Your task to perform on an android device: change the clock display to show seconds Image 0: 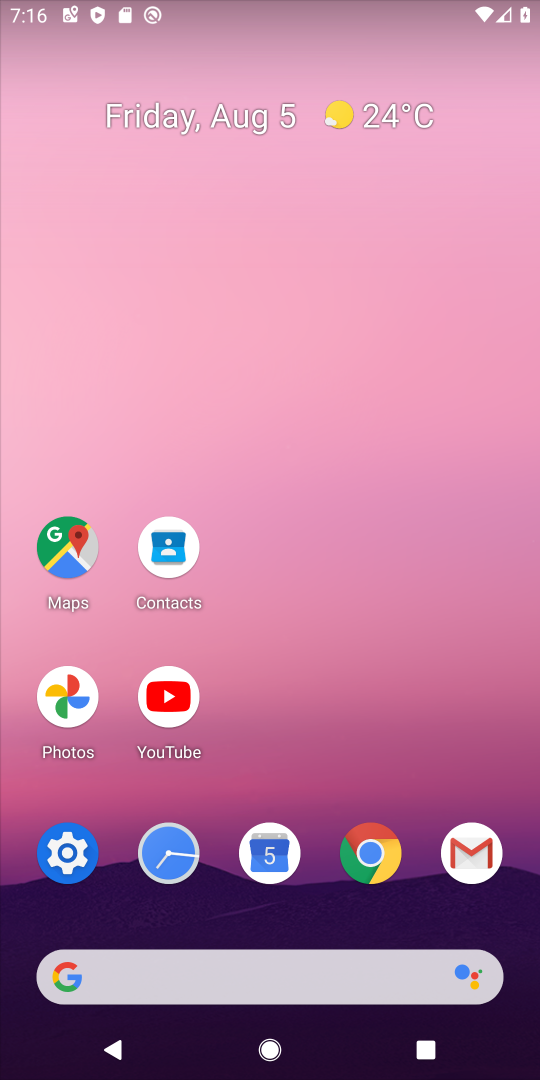
Step 0: click (167, 850)
Your task to perform on an android device: change the clock display to show seconds Image 1: 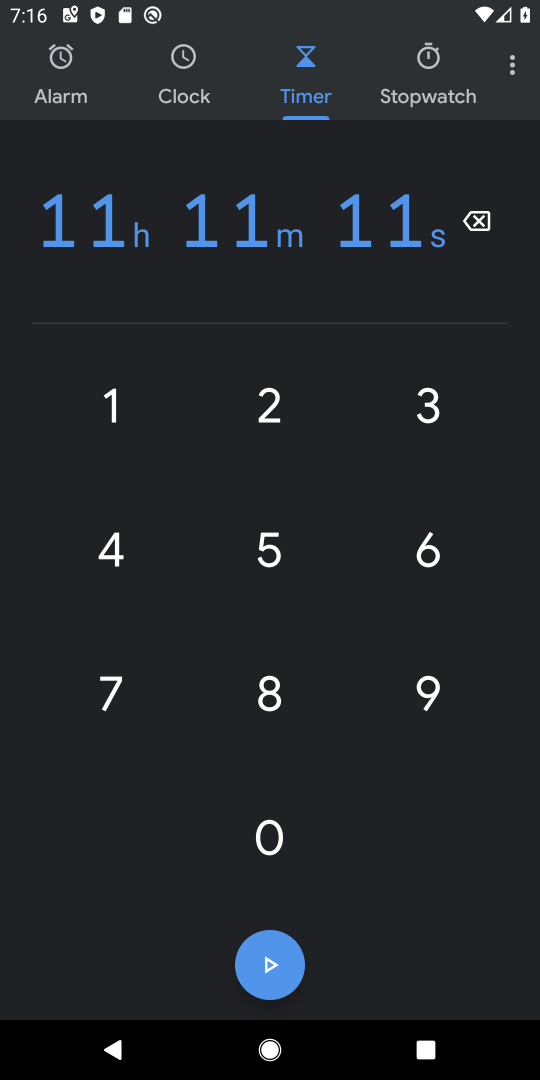
Step 1: click (512, 55)
Your task to perform on an android device: change the clock display to show seconds Image 2: 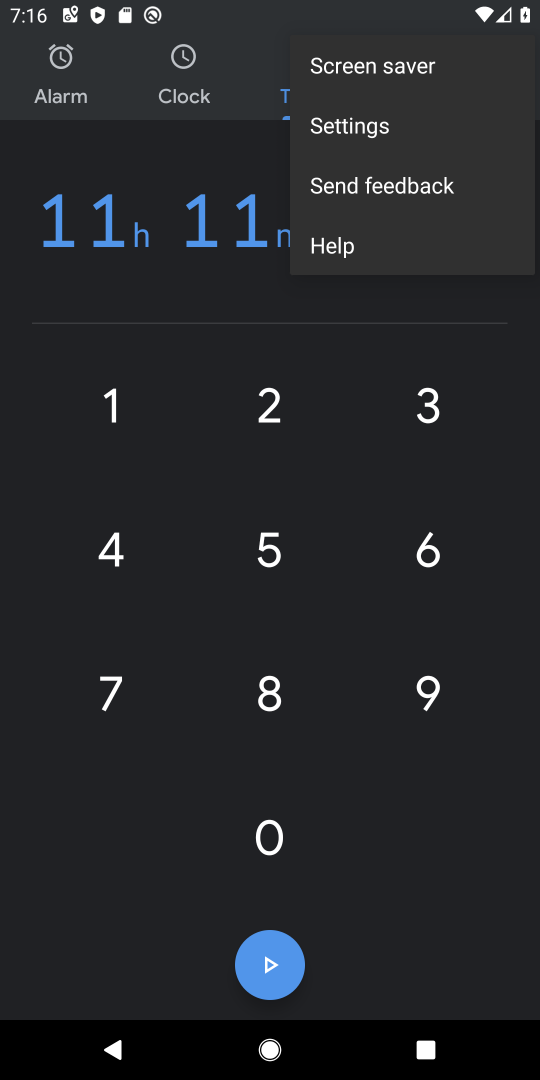
Step 2: click (355, 127)
Your task to perform on an android device: change the clock display to show seconds Image 3: 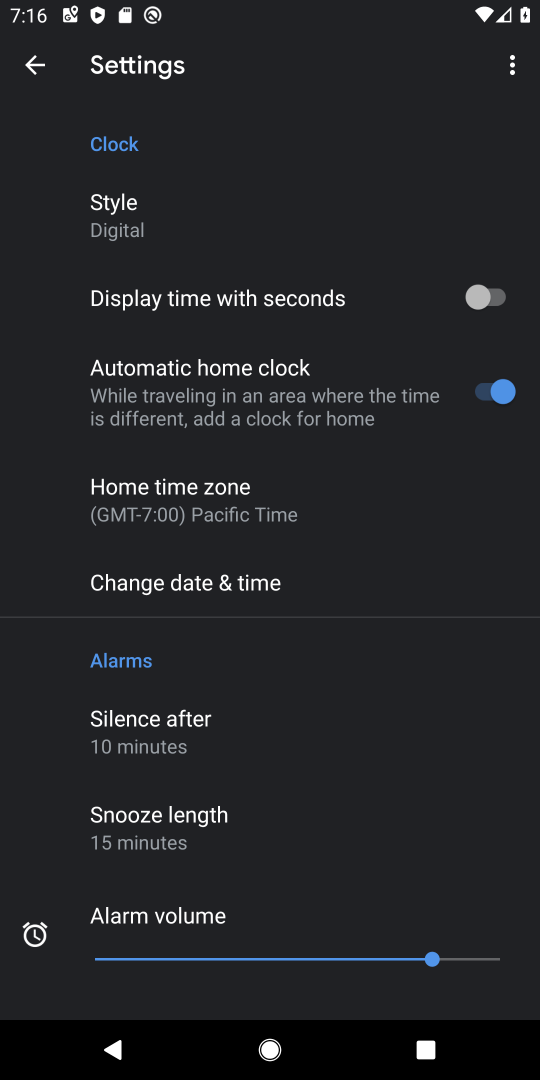
Step 3: click (118, 208)
Your task to perform on an android device: change the clock display to show seconds Image 4: 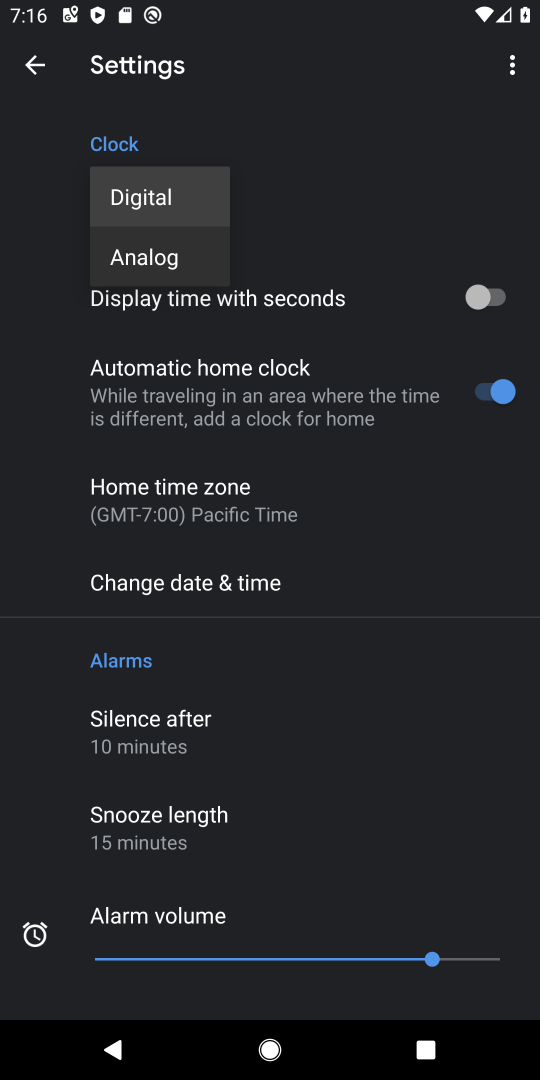
Step 4: click (468, 295)
Your task to perform on an android device: change the clock display to show seconds Image 5: 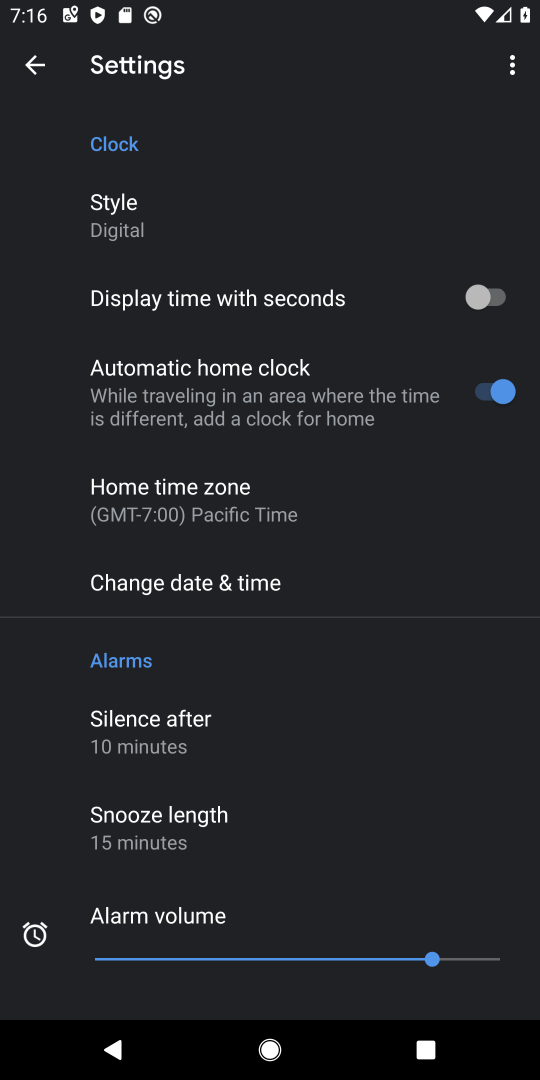
Step 5: click (489, 297)
Your task to perform on an android device: change the clock display to show seconds Image 6: 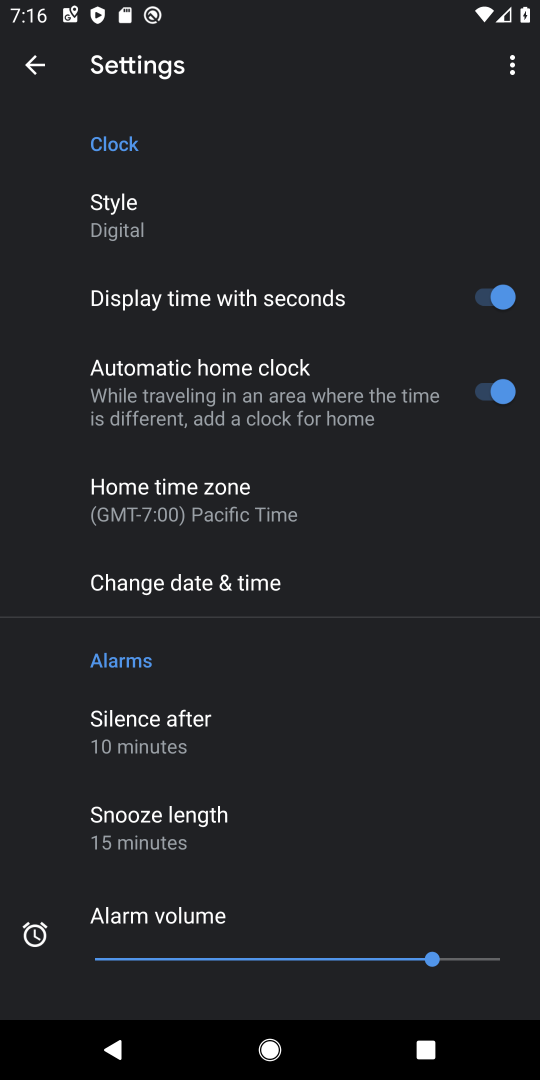
Step 6: task complete